Your task to perform on an android device: turn off location Image 0: 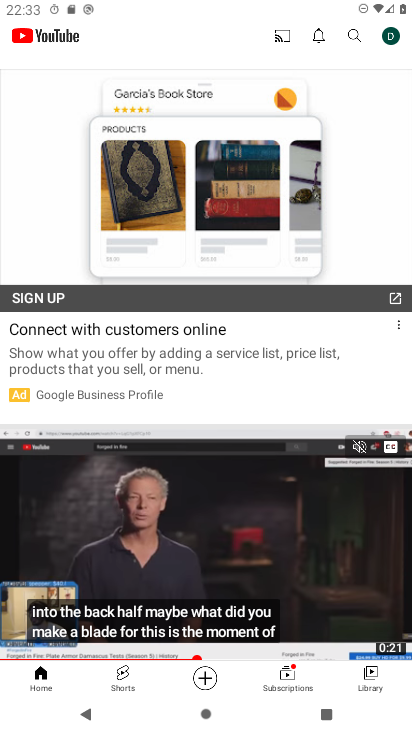
Step 0: press home button
Your task to perform on an android device: turn off location Image 1: 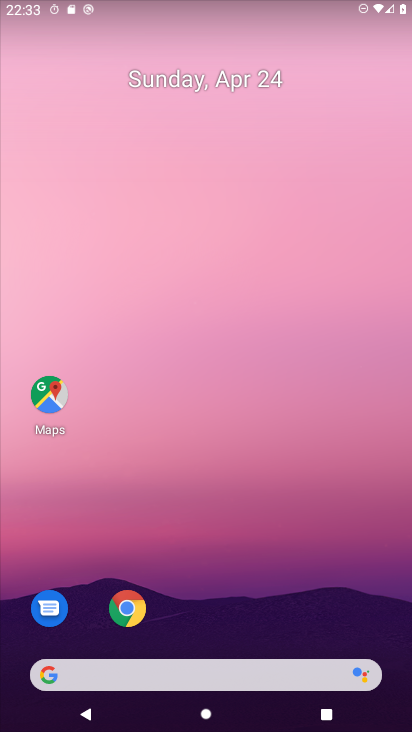
Step 1: drag from (271, 598) to (308, 81)
Your task to perform on an android device: turn off location Image 2: 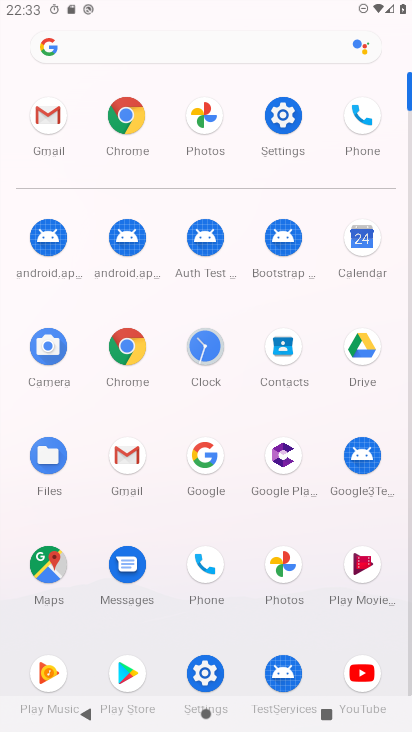
Step 2: click (291, 119)
Your task to perform on an android device: turn off location Image 3: 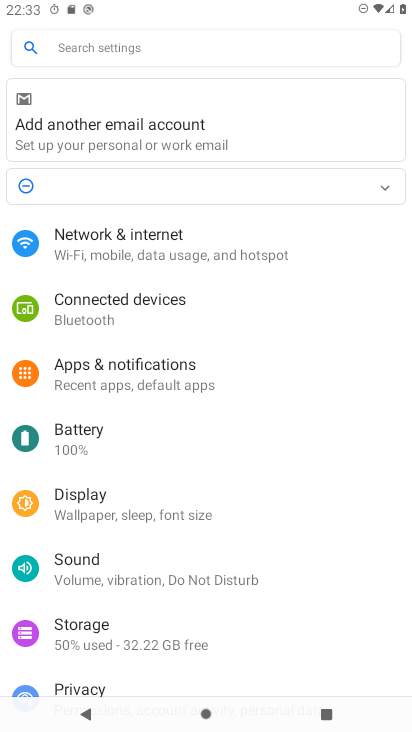
Step 3: drag from (220, 600) to (196, 237)
Your task to perform on an android device: turn off location Image 4: 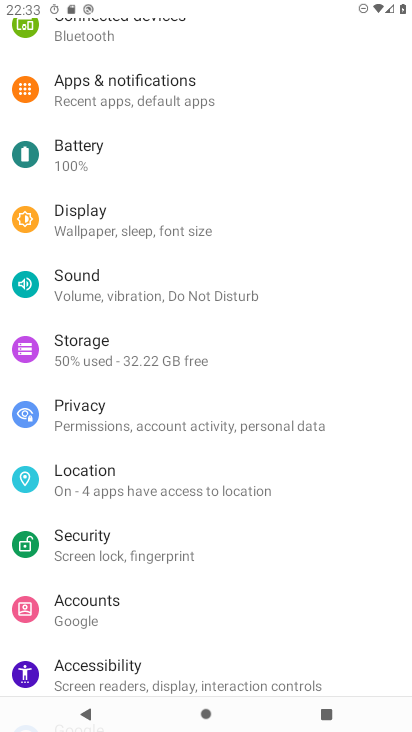
Step 4: click (179, 473)
Your task to perform on an android device: turn off location Image 5: 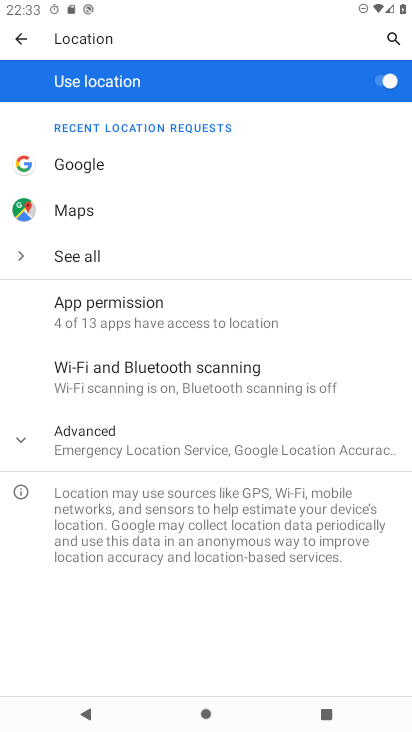
Step 5: click (379, 81)
Your task to perform on an android device: turn off location Image 6: 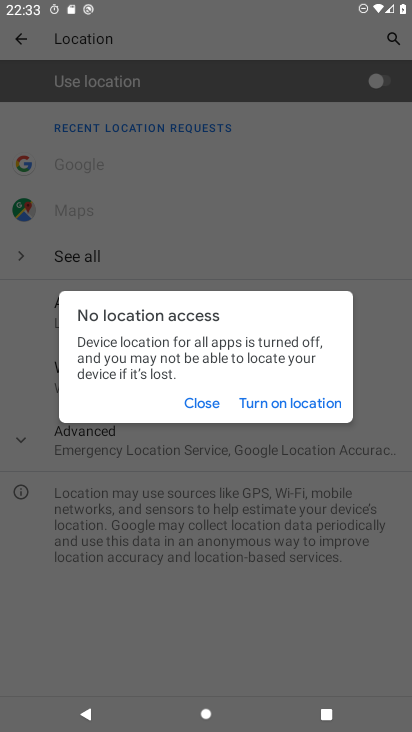
Step 6: click (199, 398)
Your task to perform on an android device: turn off location Image 7: 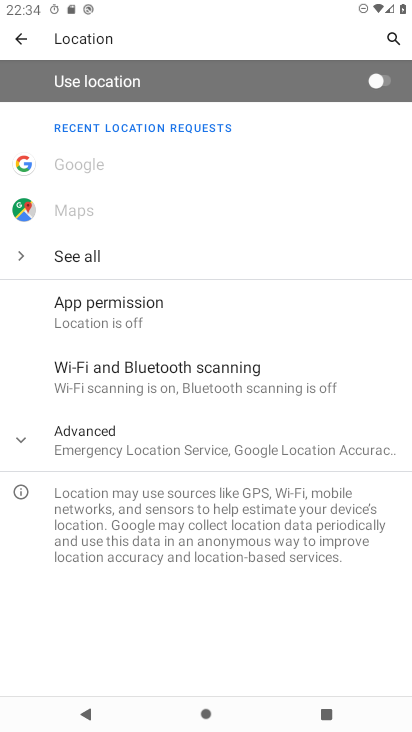
Step 7: task complete